Your task to perform on an android device: Open Google Maps Image 0: 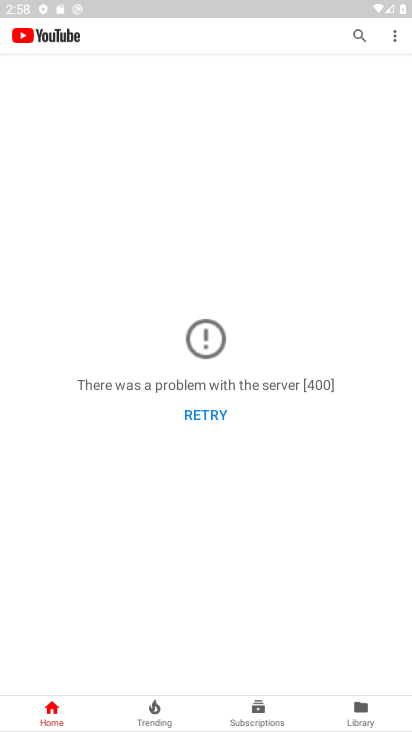
Step 0: press home button
Your task to perform on an android device: Open Google Maps Image 1: 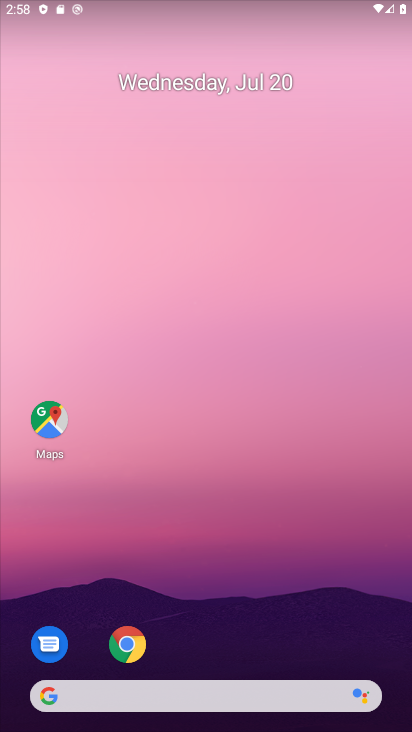
Step 1: click (47, 428)
Your task to perform on an android device: Open Google Maps Image 2: 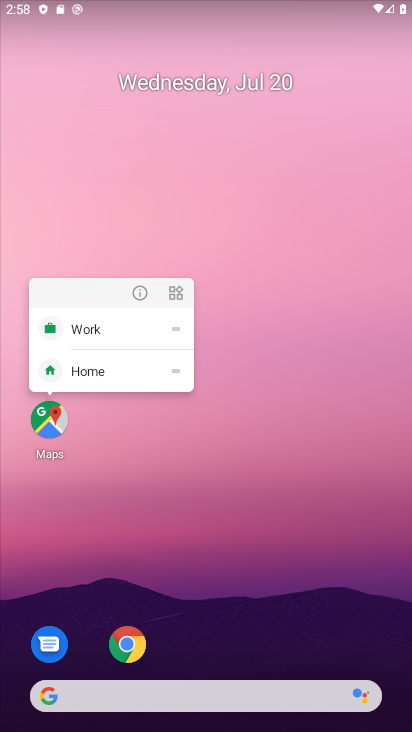
Step 2: click (46, 428)
Your task to perform on an android device: Open Google Maps Image 3: 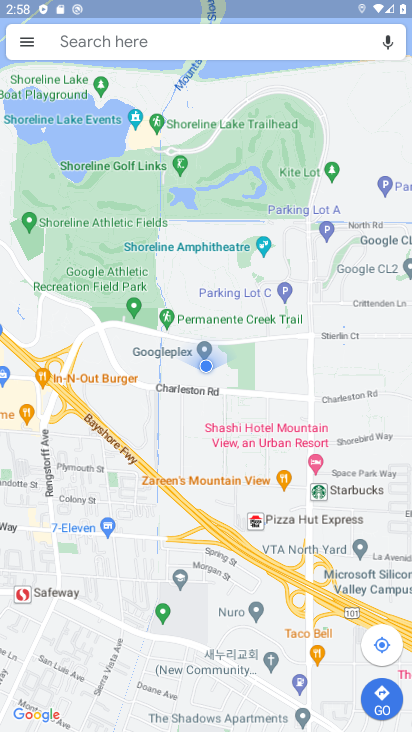
Step 3: task complete